Your task to perform on an android device: When is my next appointment? Image 0: 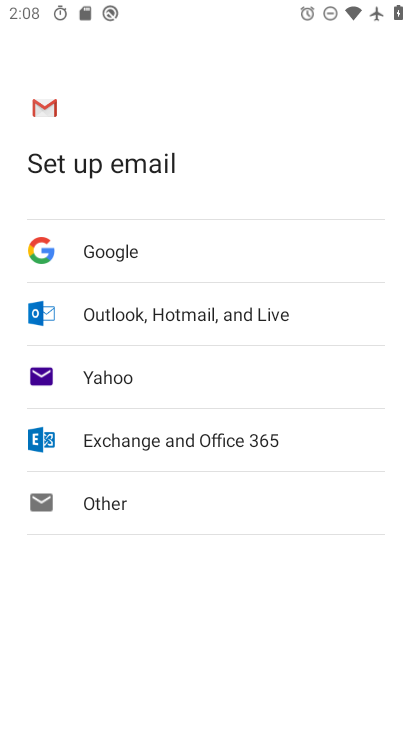
Step 0: press home button
Your task to perform on an android device: When is my next appointment? Image 1: 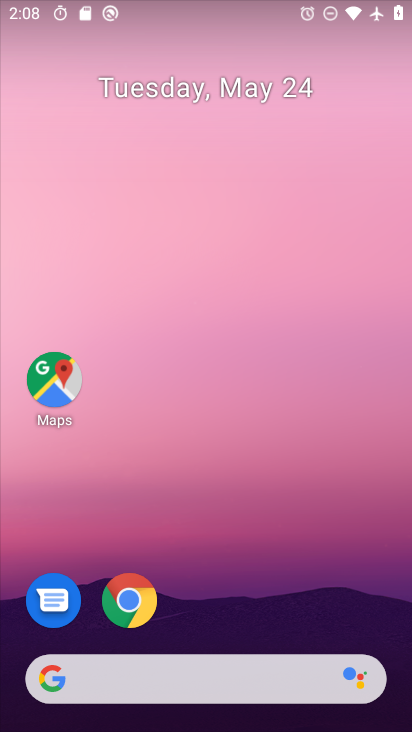
Step 1: drag from (275, 529) to (220, 152)
Your task to perform on an android device: When is my next appointment? Image 2: 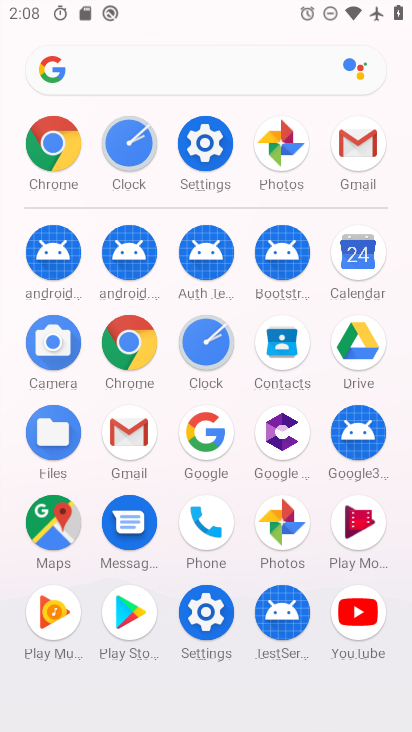
Step 2: click (357, 249)
Your task to perform on an android device: When is my next appointment? Image 3: 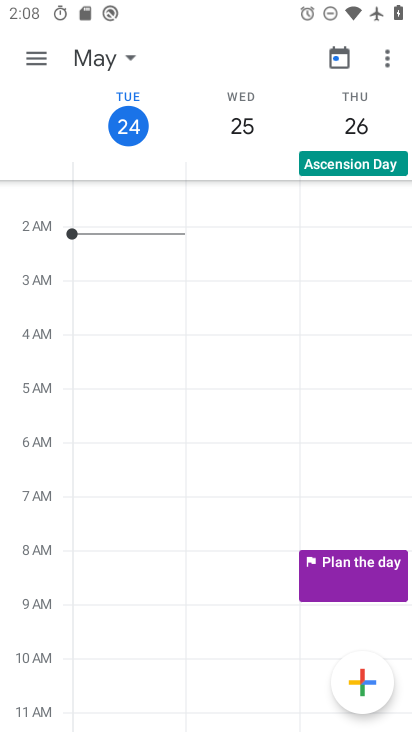
Step 3: task complete